Your task to perform on an android device: What is the news today? Image 0: 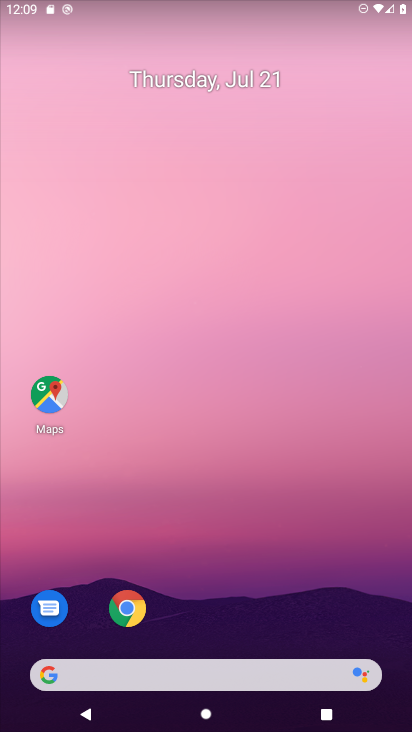
Step 0: press home button
Your task to perform on an android device: What is the news today? Image 1: 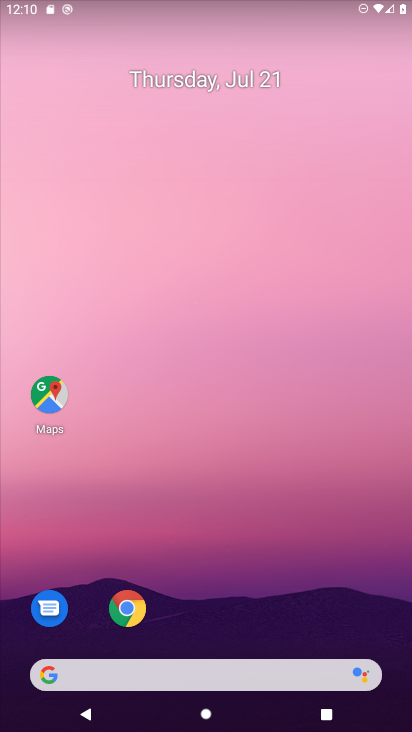
Step 1: click (54, 676)
Your task to perform on an android device: What is the news today? Image 2: 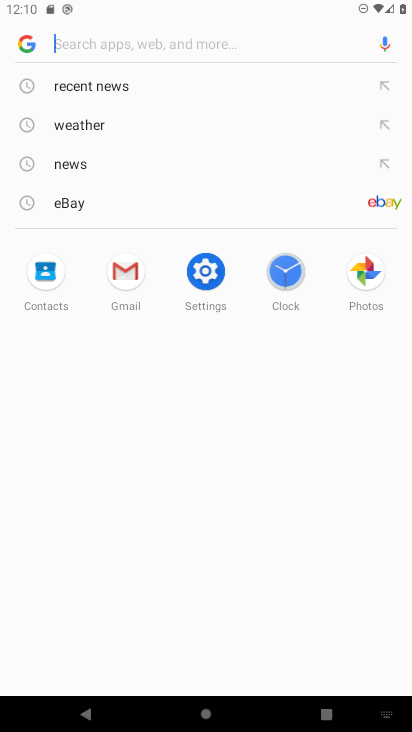
Step 2: type "news today?"
Your task to perform on an android device: What is the news today? Image 3: 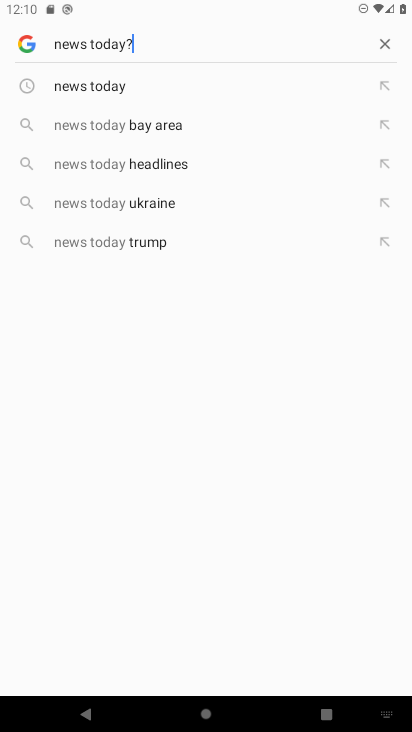
Step 3: press enter
Your task to perform on an android device: What is the news today? Image 4: 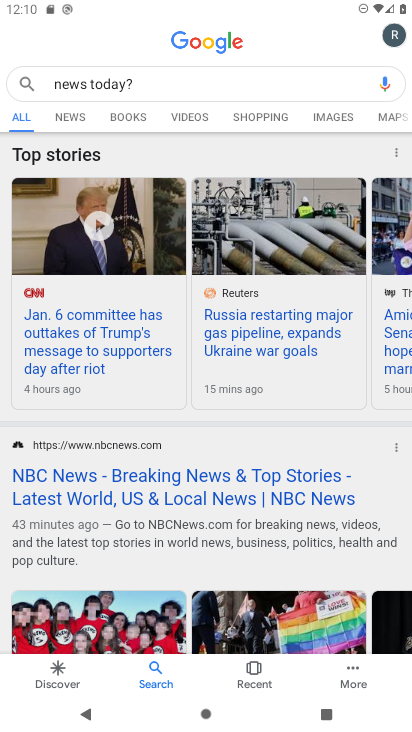
Step 4: task complete